Your task to perform on an android device: star an email in the gmail app Image 0: 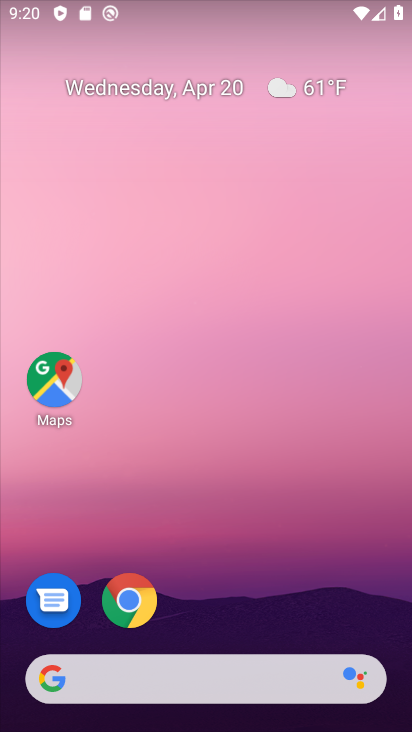
Step 0: drag from (364, 589) to (376, 6)
Your task to perform on an android device: star an email in the gmail app Image 1: 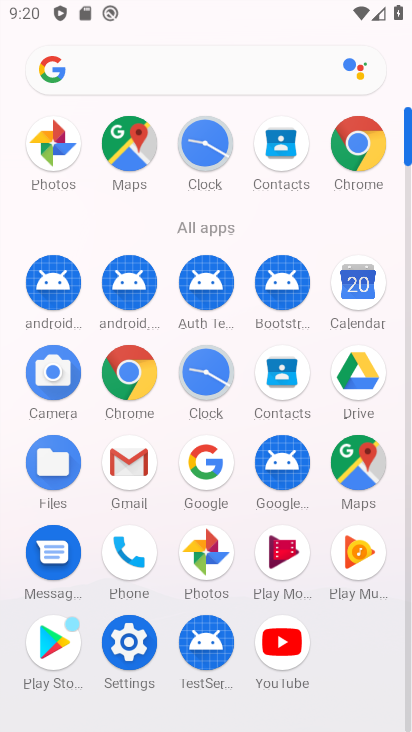
Step 1: click (130, 466)
Your task to perform on an android device: star an email in the gmail app Image 2: 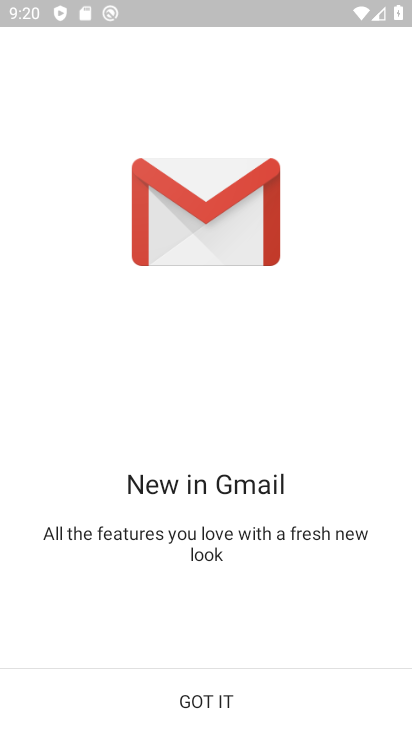
Step 2: click (205, 708)
Your task to perform on an android device: star an email in the gmail app Image 3: 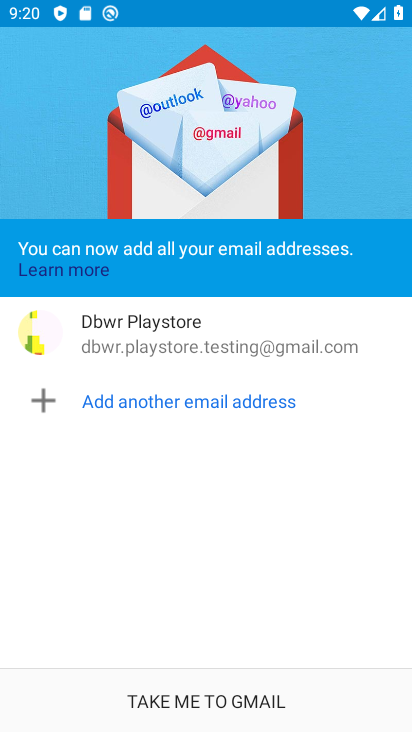
Step 3: click (176, 709)
Your task to perform on an android device: star an email in the gmail app Image 4: 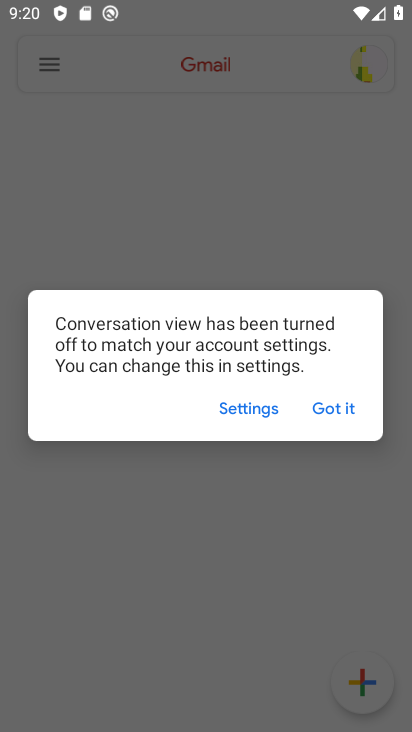
Step 4: click (320, 414)
Your task to perform on an android device: star an email in the gmail app Image 5: 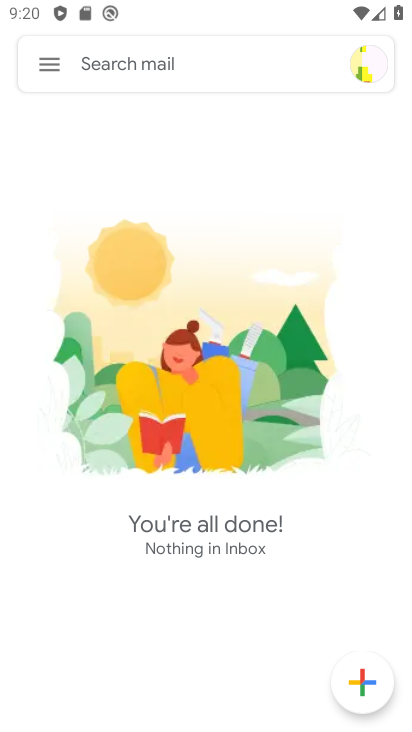
Step 5: click (53, 66)
Your task to perform on an android device: star an email in the gmail app Image 6: 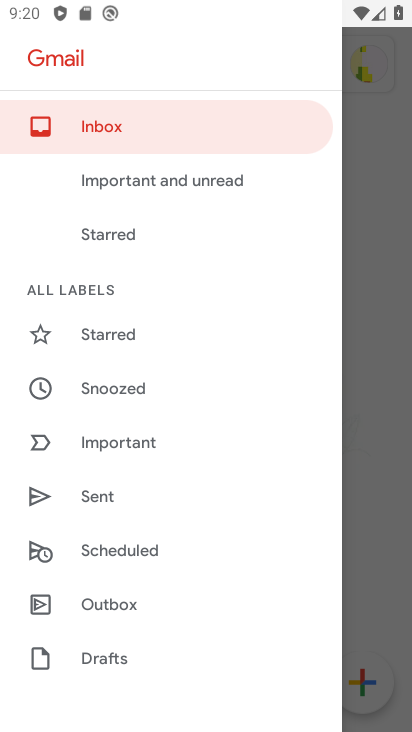
Step 6: drag from (150, 564) to (138, 181)
Your task to perform on an android device: star an email in the gmail app Image 7: 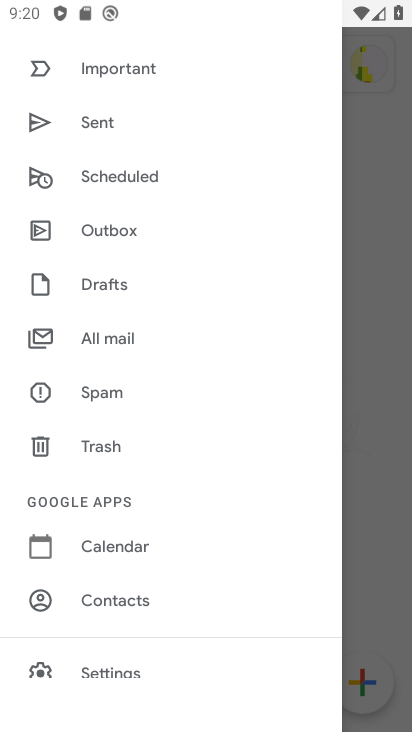
Step 7: click (94, 339)
Your task to perform on an android device: star an email in the gmail app Image 8: 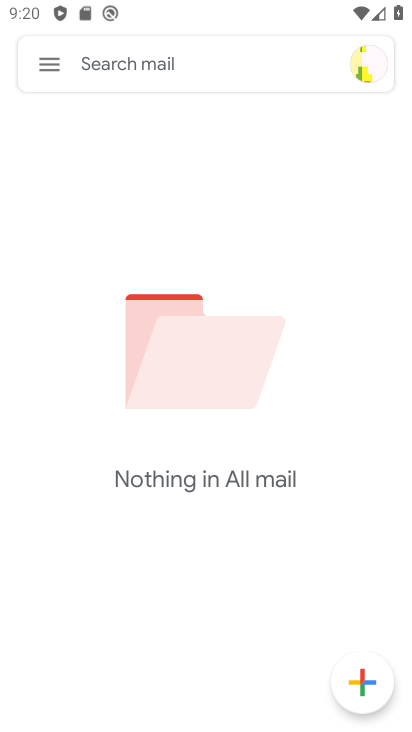
Step 8: task complete